Your task to perform on an android device: turn vacation reply on in the gmail app Image 0: 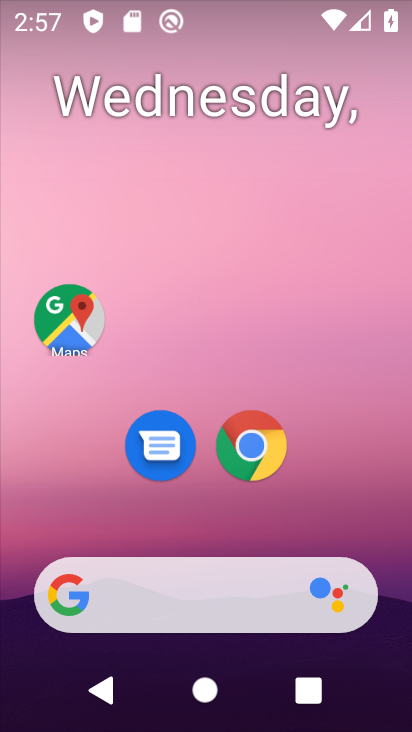
Step 0: drag from (165, 552) to (328, 121)
Your task to perform on an android device: turn vacation reply on in the gmail app Image 1: 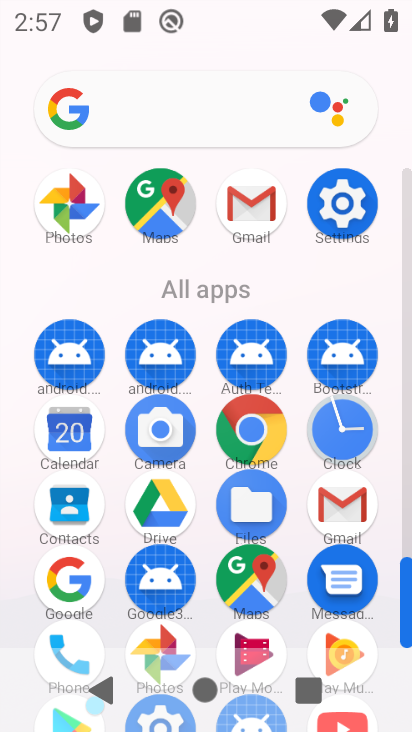
Step 1: drag from (134, 592) to (209, 326)
Your task to perform on an android device: turn vacation reply on in the gmail app Image 2: 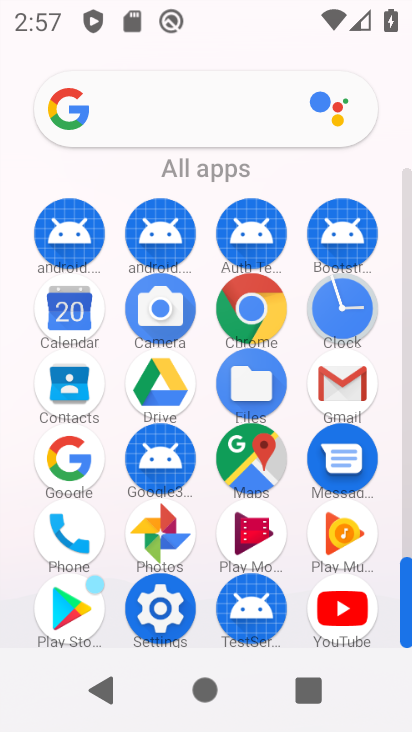
Step 2: click (350, 382)
Your task to perform on an android device: turn vacation reply on in the gmail app Image 3: 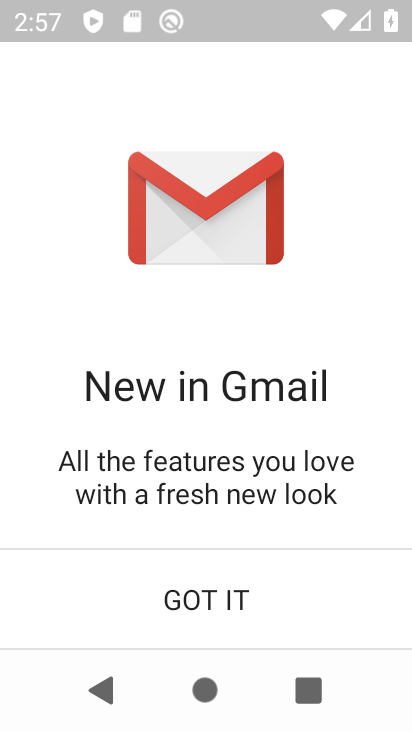
Step 3: click (224, 605)
Your task to perform on an android device: turn vacation reply on in the gmail app Image 4: 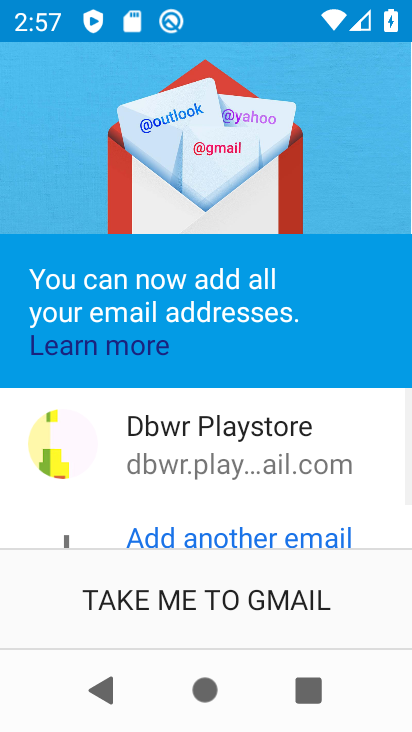
Step 4: click (223, 604)
Your task to perform on an android device: turn vacation reply on in the gmail app Image 5: 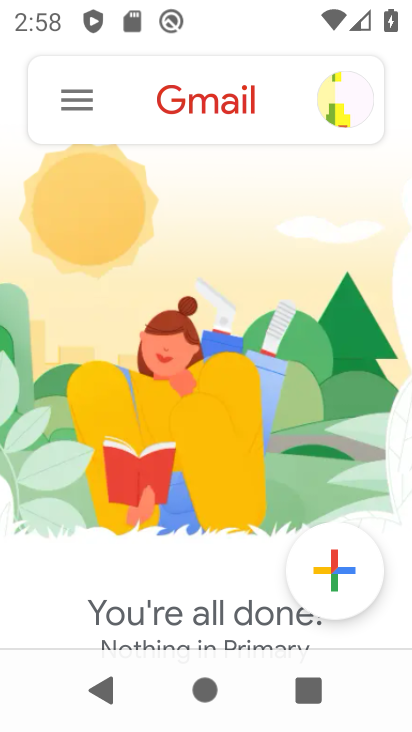
Step 5: click (88, 110)
Your task to perform on an android device: turn vacation reply on in the gmail app Image 6: 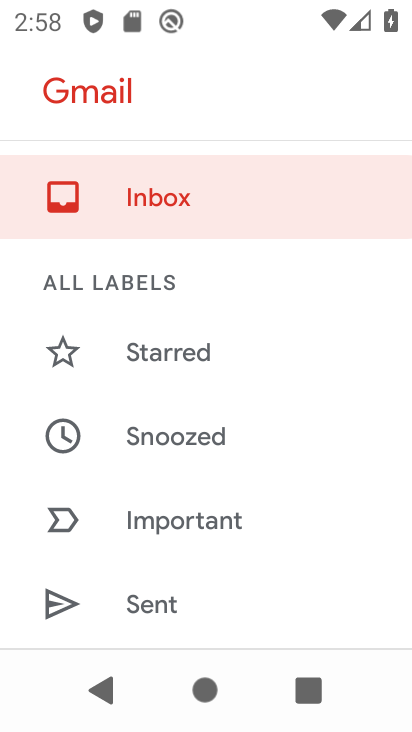
Step 6: drag from (166, 599) to (285, 169)
Your task to perform on an android device: turn vacation reply on in the gmail app Image 7: 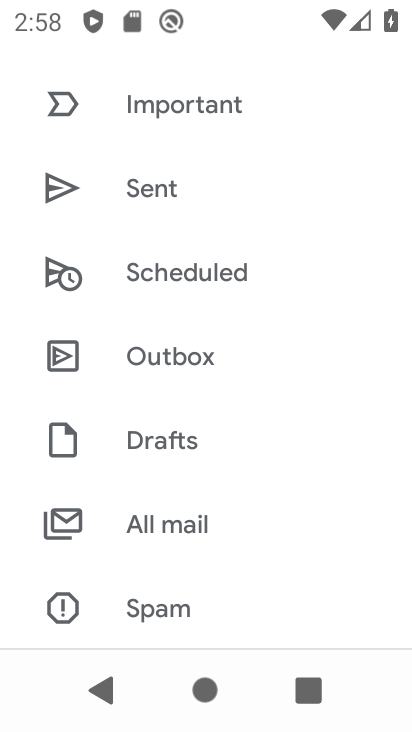
Step 7: drag from (201, 469) to (288, 147)
Your task to perform on an android device: turn vacation reply on in the gmail app Image 8: 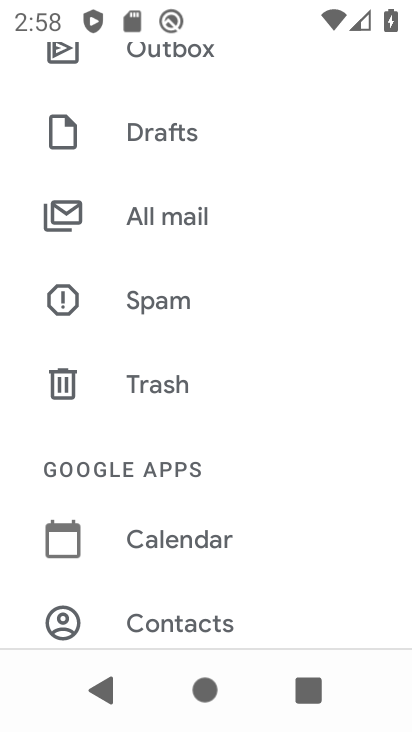
Step 8: drag from (221, 580) to (352, 107)
Your task to perform on an android device: turn vacation reply on in the gmail app Image 9: 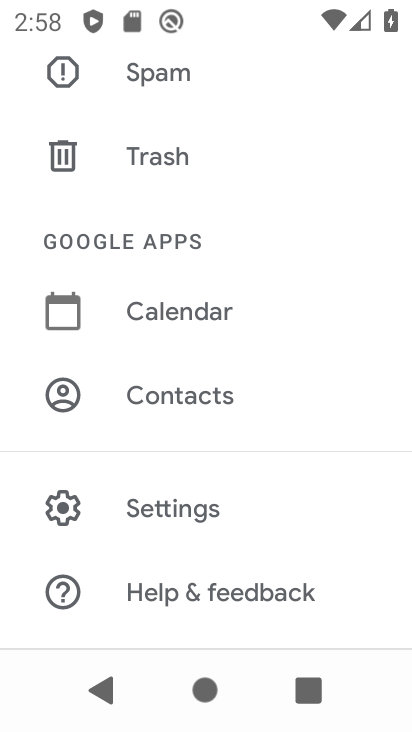
Step 9: click (201, 519)
Your task to perform on an android device: turn vacation reply on in the gmail app Image 10: 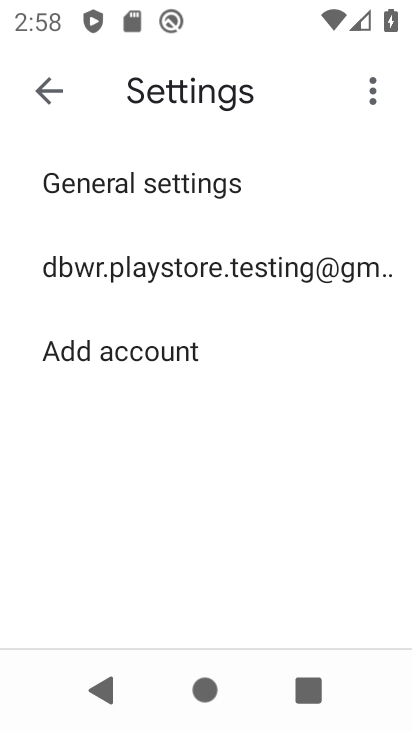
Step 10: click (290, 278)
Your task to perform on an android device: turn vacation reply on in the gmail app Image 11: 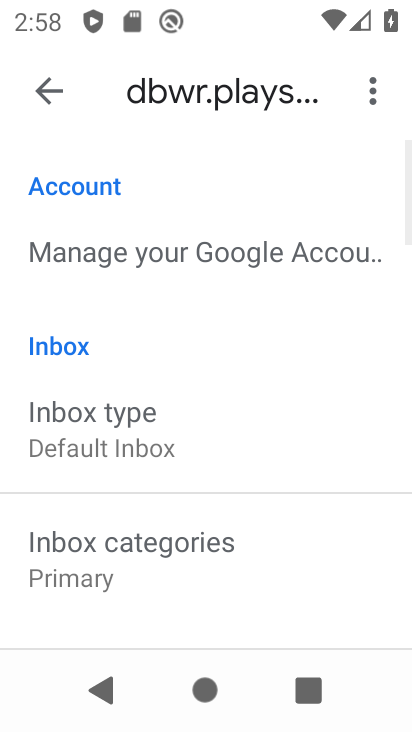
Step 11: drag from (112, 607) to (272, 256)
Your task to perform on an android device: turn vacation reply on in the gmail app Image 12: 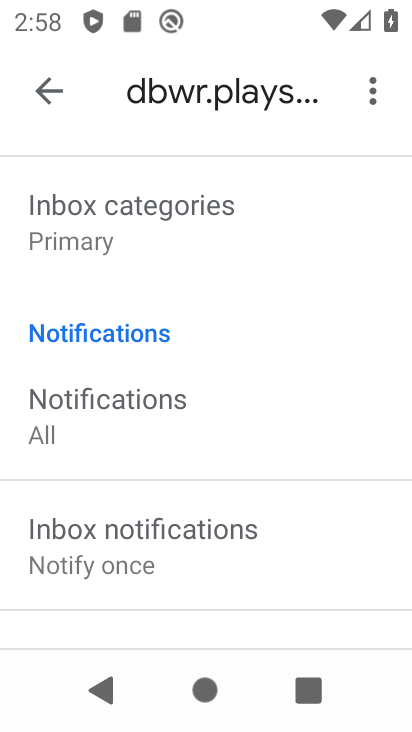
Step 12: drag from (190, 560) to (321, 231)
Your task to perform on an android device: turn vacation reply on in the gmail app Image 13: 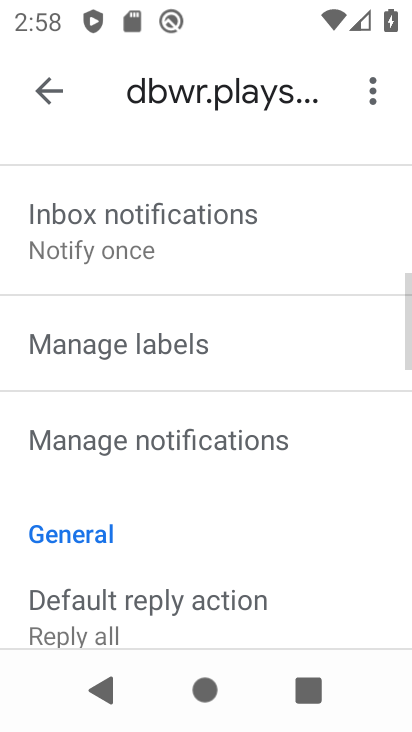
Step 13: drag from (153, 580) to (293, 226)
Your task to perform on an android device: turn vacation reply on in the gmail app Image 14: 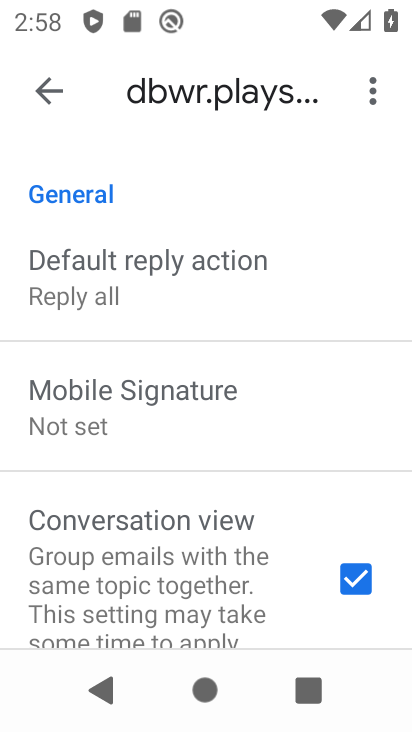
Step 14: drag from (162, 568) to (288, 188)
Your task to perform on an android device: turn vacation reply on in the gmail app Image 15: 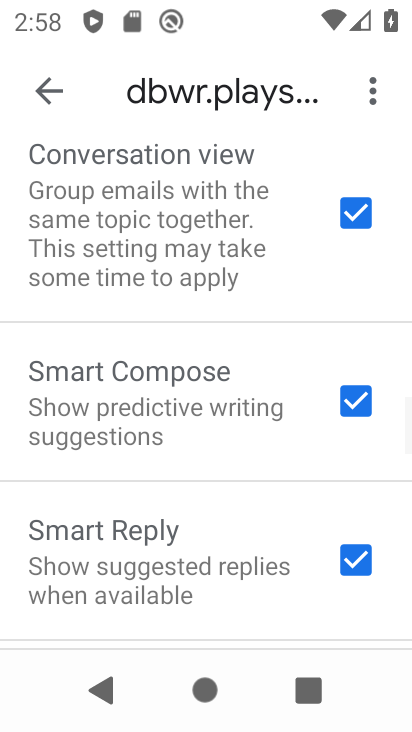
Step 15: drag from (142, 471) to (225, 159)
Your task to perform on an android device: turn vacation reply on in the gmail app Image 16: 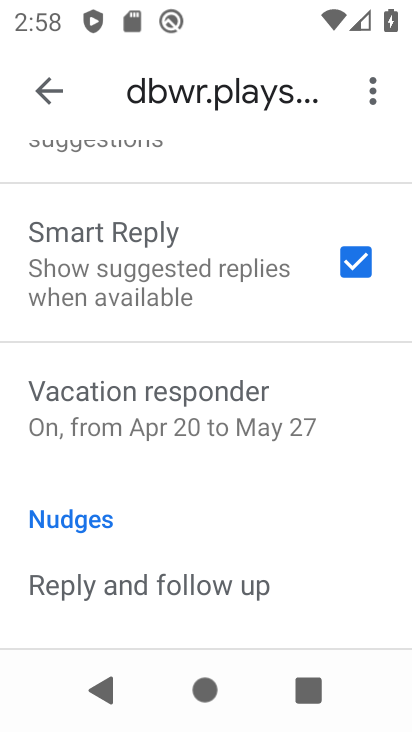
Step 16: click (197, 407)
Your task to perform on an android device: turn vacation reply on in the gmail app Image 17: 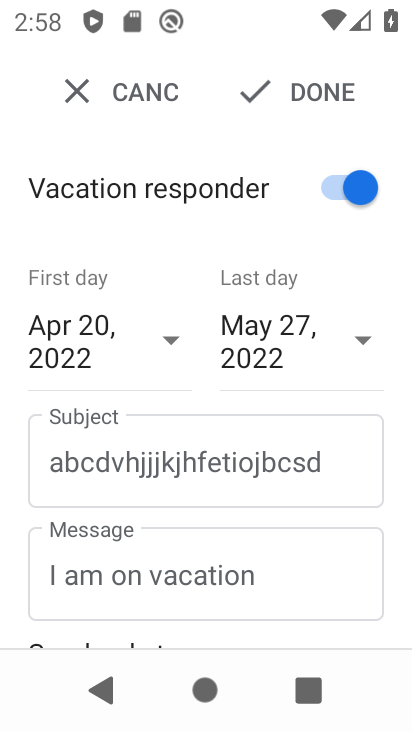
Step 17: click (340, 96)
Your task to perform on an android device: turn vacation reply on in the gmail app Image 18: 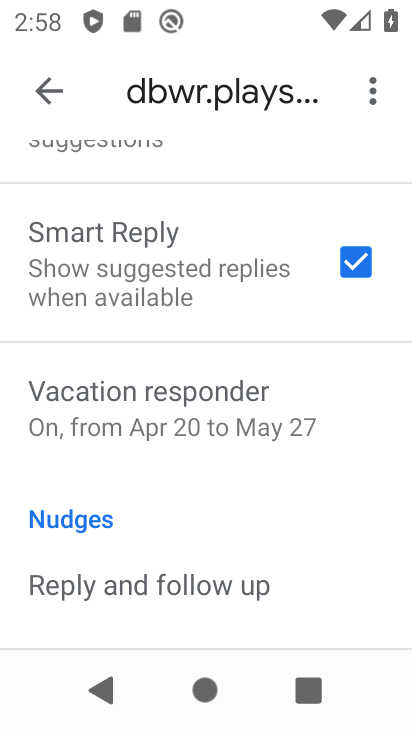
Step 18: task complete